Your task to perform on an android device: check android version Image 0: 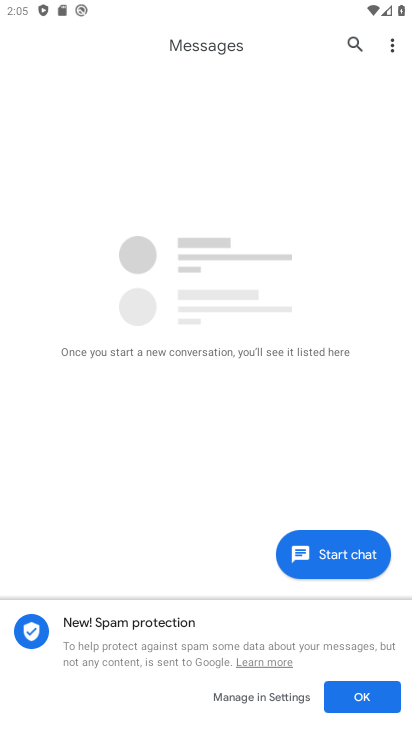
Step 0: press home button
Your task to perform on an android device: check android version Image 1: 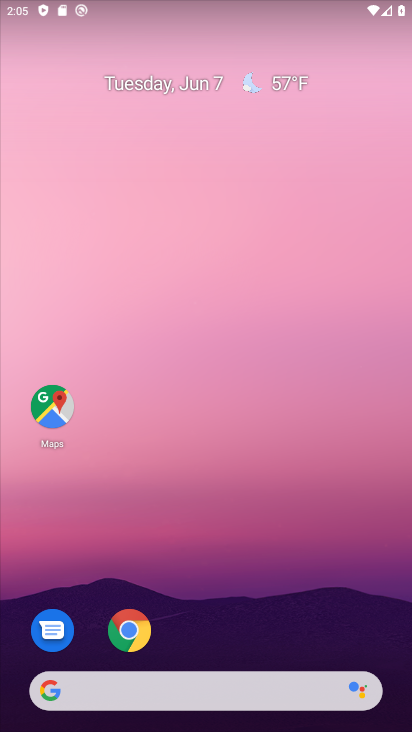
Step 1: drag from (395, 716) to (327, 147)
Your task to perform on an android device: check android version Image 2: 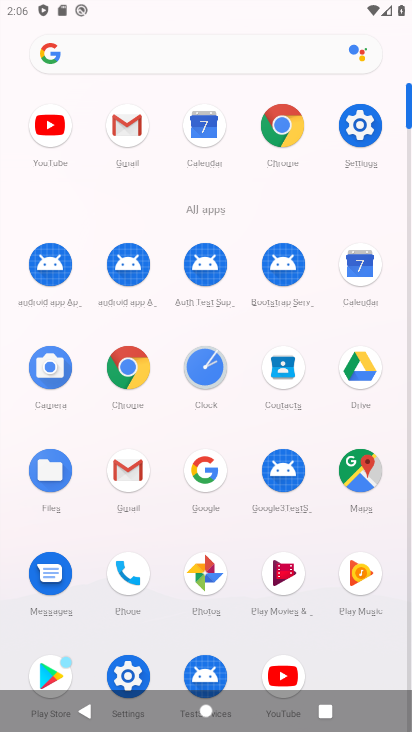
Step 2: click (358, 128)
Your task to perform on an android device: check android version Image 3: 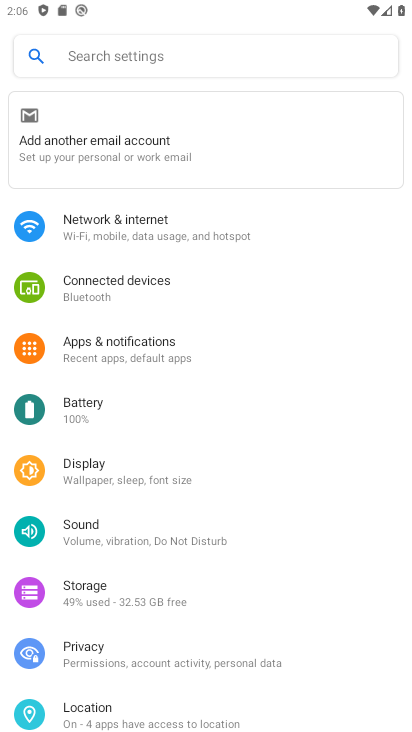
Step 3: drag from (322, 670) to (303, 250)
Your task to perform on an android device: check android version Image 4: 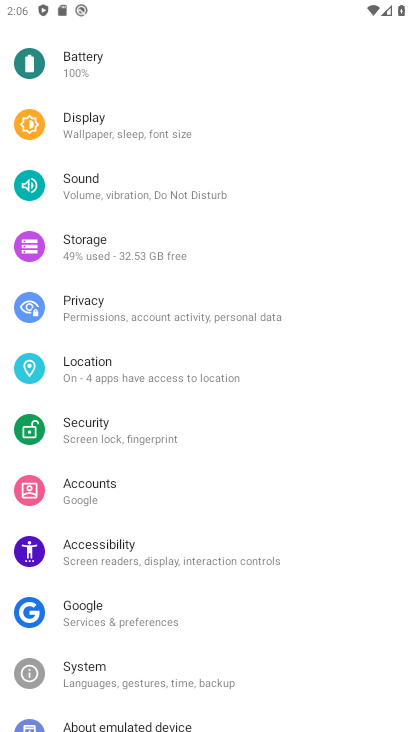
Step 4: click (146, 722)
Your task to perform on an android device: check android version Image 5: 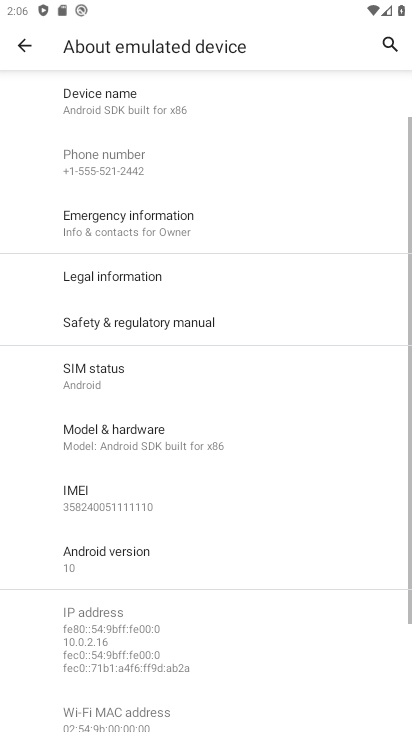
Step 5: click (109, 554)
Your task to perform on an android device: check android version Image 6: 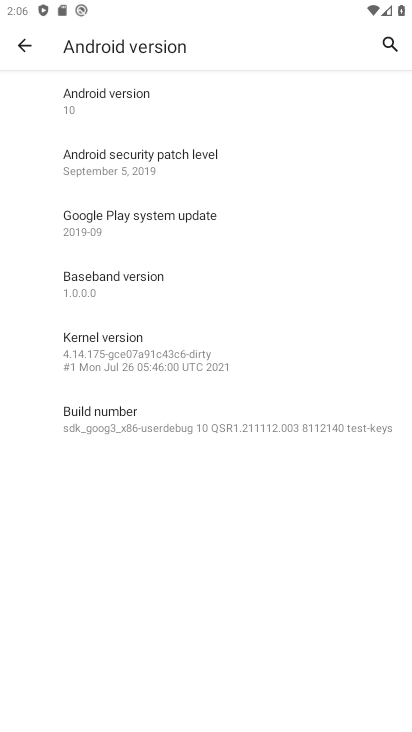
Step 6: task complete